Your task to perform on an android device: Open the phone app and click the voicemail tab. Image 0: 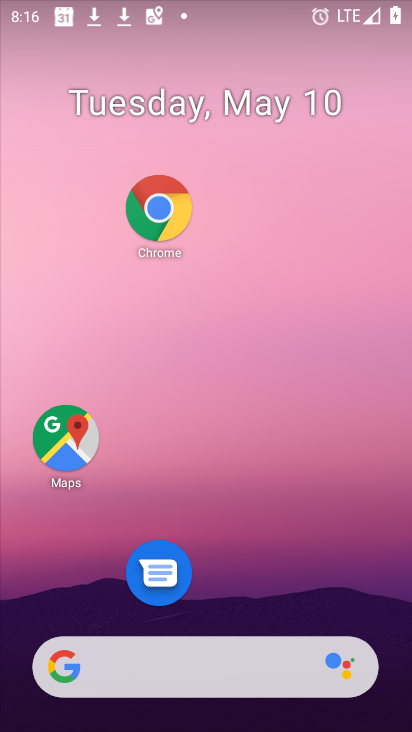
Step 0: drag from (238, 686) to (332, 178)
Your task to perform on an android device: Open the phone app and click the voicemail tab. Image 1: 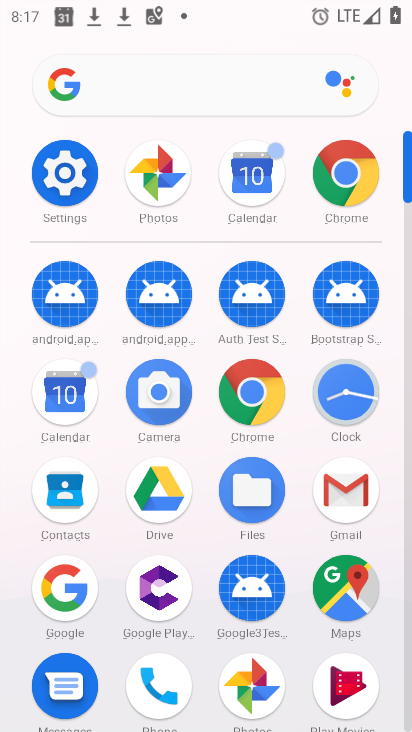
Step 1: click (164, 680)
Your task to perform on an android device: Open the phone app and click the voicemail tab. Image 2: 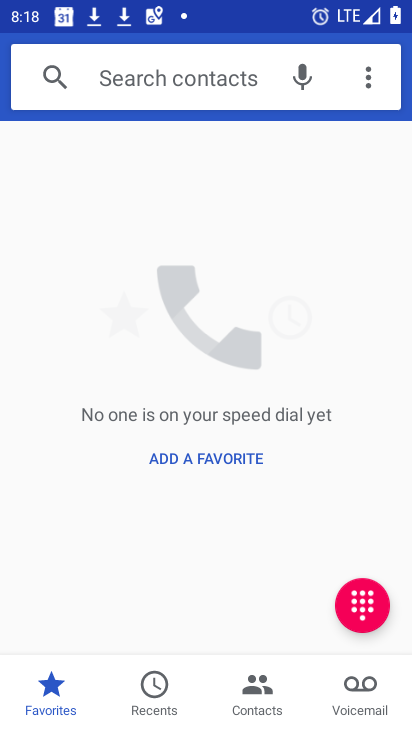
Step 2: click (262, 699)
Your task to perform on an android device: Open the phone app and click the voicemail tab. Image 3: 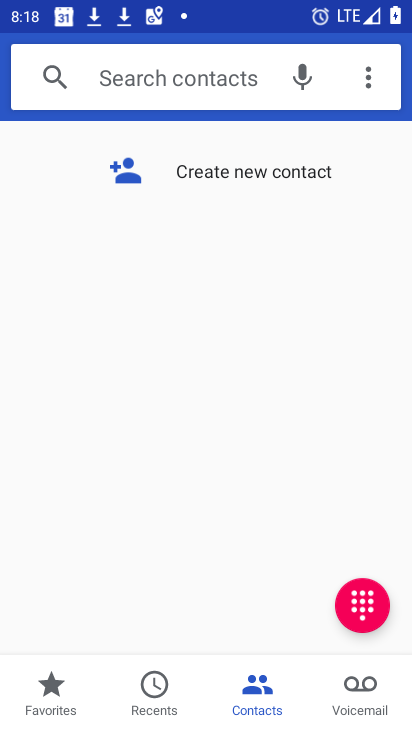
Step 3: click (346, 678)
Your task to perform on an android device: Open the phone app and click the voicemail tab. Image 4: 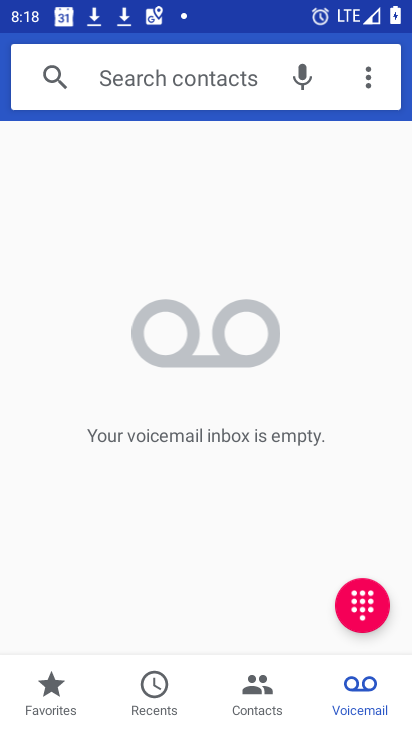
Step 4: task complete